Your task to perform on an android device: turn on improve location accuracy Image 0: 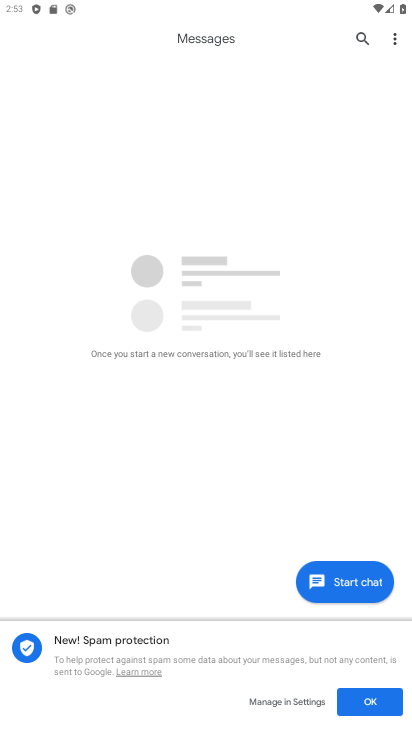
Step 0: press back button
Your task to perform on an android device: turn on improve location accuracy Image 1: 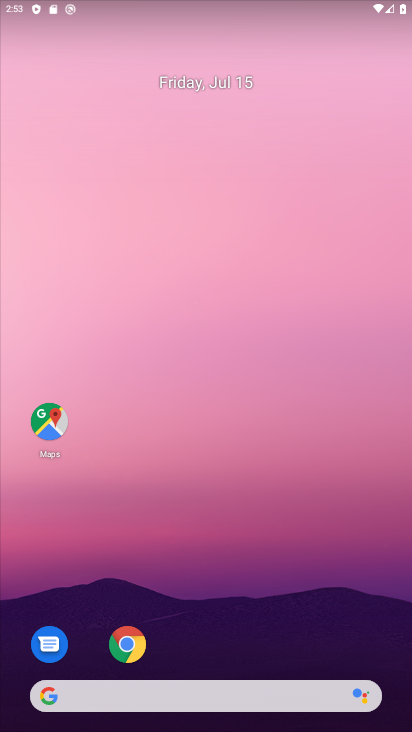
Step 1: drag from (202, 632) to (289, 47)
Your task to perform on an android device: turn on improve location accuracy Image 2: 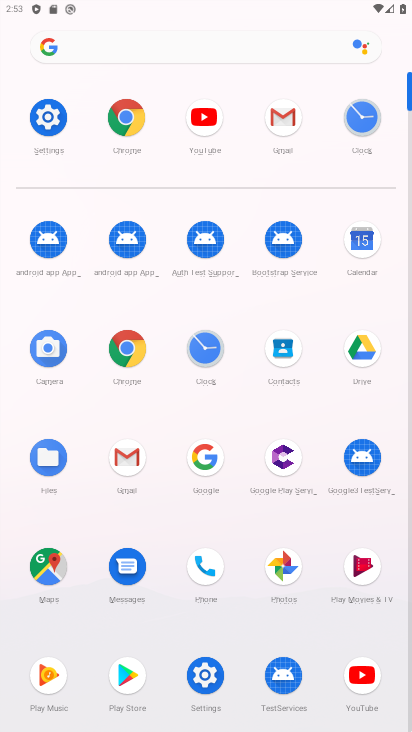
Step 2: click (32, 129)
Your task to perform on an android device: turn on improve location accuracy Image 3: 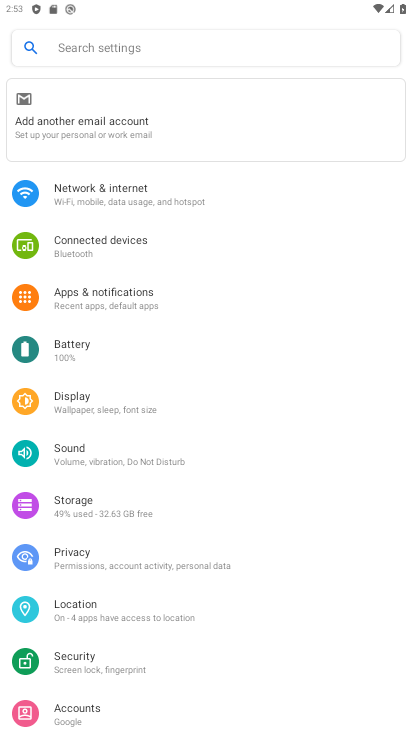
Step 3: click (103, 614)
Your task to perform on an android device: turn on improve location accuracy Image 4: 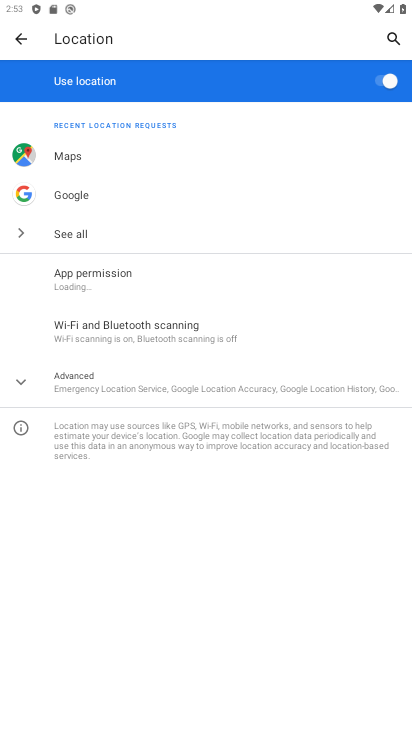
Step 4: click (148, 392)
Your task to perform on an android device: turn on improve location accuracy Image 5: 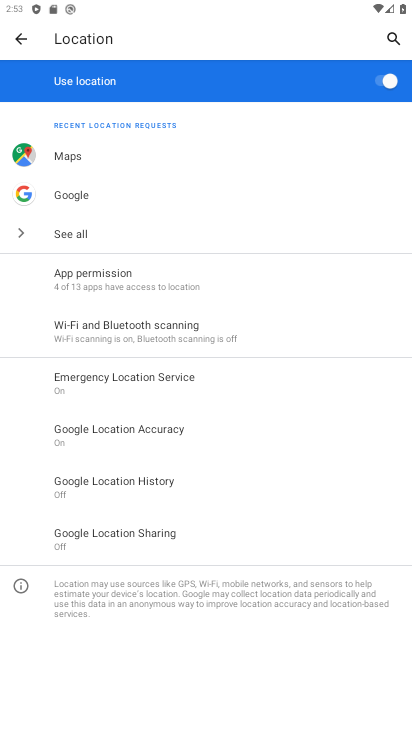
Step 5: click (119, 431)
Your task to perform on an android device: turn on improve location accuracy Image 6: 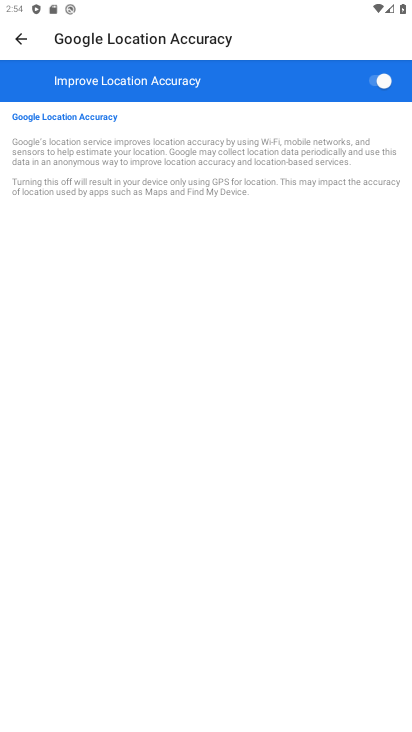
Step 6: task complete